Your task to perform on an android device: Empty the shopping cart on newegg.com. Add "razer blade" to the cart on newegg.com, then select checkout. Image 0: 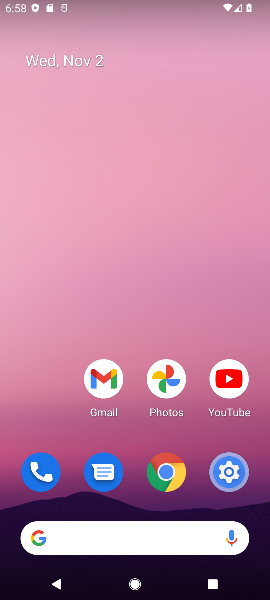
Step 0: click (177, 469)
Your task to perform on an android device: Empty the shopping cart on newegg.com. Add "razer blade" to the cart on newegg.com, then select checkout. Image 1: 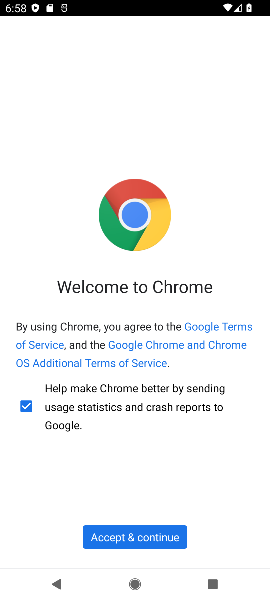
Step 1: click (125, 539)
Your task to perform on an android device: Empty the shopping cart on newegg.com. Add "razer blade" to the cart on newegg.com, then select checkout. Image 2: 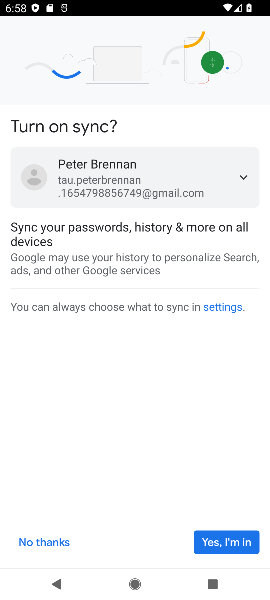
Step 2: click (232, 546)
Your task to perform on an android device: Empty the shopping cart on newegg.com. Add "razer blade" to the cart on newegg.com, then select checkout. Image 3: 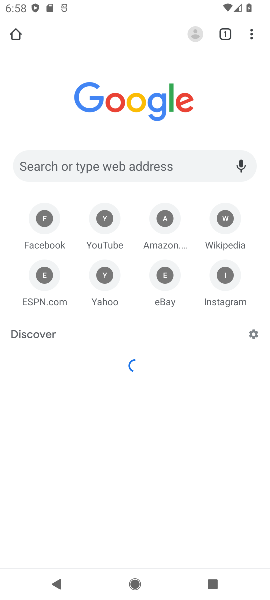
Step 3: click (118, 162)
Your task to perform on an android device: Empty the shopping cart on newegg.com. Add "razer blade" to the cart on newegg.com, then select checkout. Image 4: 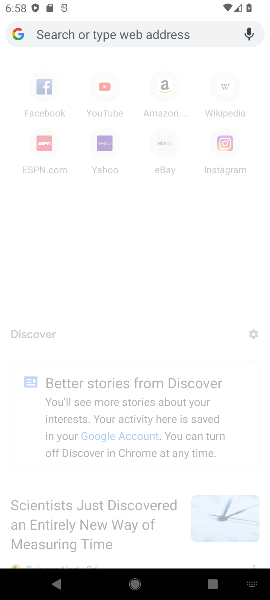
Step 4: type "newegg.com"
Your task to perform on an android device: Empty the shopping cart on newegg.com. Add "razer blade" to the cart on newegg.com, then select checkout. Image 5: 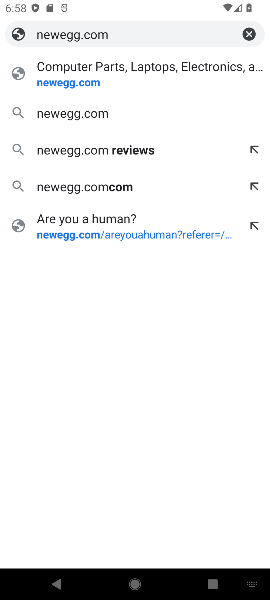
Step 5: click (83, 71)
Your task to perform on an android device: Empty the shopping cart on newegg.com. Add "razer blade" to the cart on newegg.com, then select checkout. Image 6: 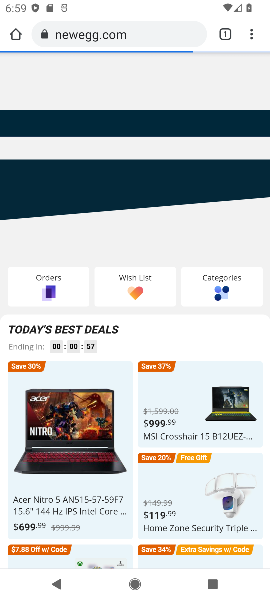
Step 6: click (96, 95)
Your task to perform on an android device: Empty the shopping cart on newegg.com. Add "razer blade" to the cart on newegg.com, then select checkout. Image 7: 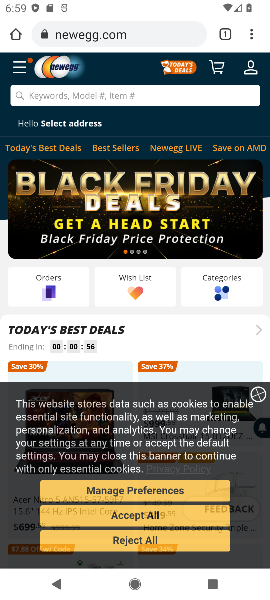
Step 7: click (143, 100)
Your task to perform on an android device: Empty the shopping cart on newegg.com. Add "razer blade" to the cart on newegg.com, then select checkout. Image 8: 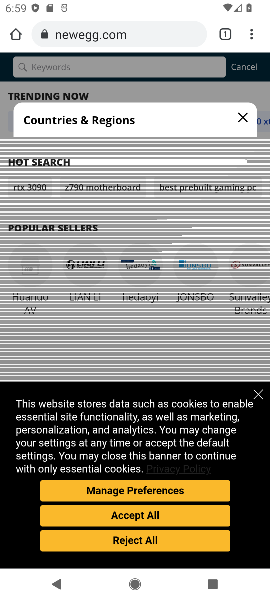
Step 8: type "razer blade"
Your task to perform on an android device: Empty the shopping cart on newegg.com. Add "razer blade" to the cart on newegg.com, then select checkout. Image 9: 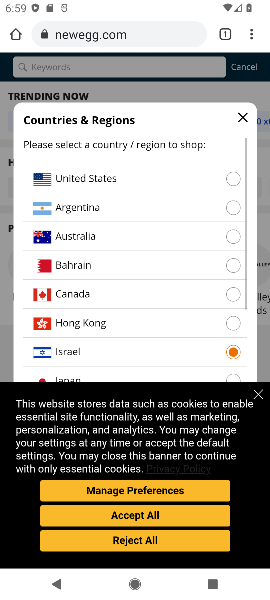
Step 9: click (240, 116)
Your task to perform on an android device: Empty the shopping cart on newegg.com. Add "razer blade" to the cart on newegg.com, then select checkout. Image 10: 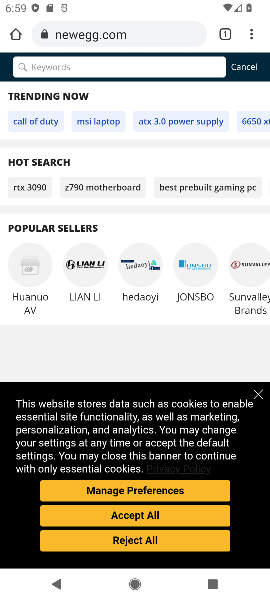
Step 10: click (256, 395)
Your task to perform on an android device: Empty the shopping cart on newegg.com. Add "razer blade" to the cart on newegg.com, then select checkout. Image 11: 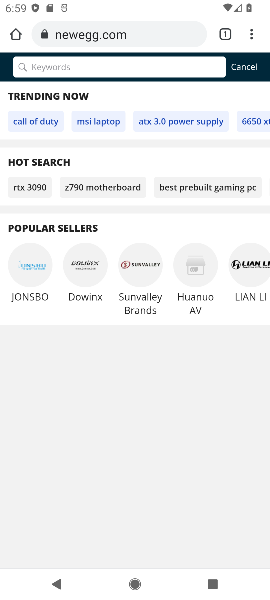
Step 11: click (109, 66)
Your task to perform on an android device: Empty the shopping cart on newegg.com. Add "razer blade" to the cart on newegg.com, then select checkout. Image 12: 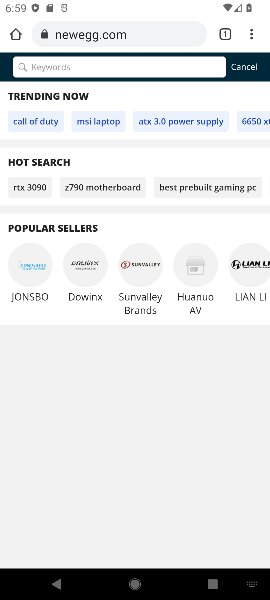
Step 12: type "razer blade"
Your task to perform on an android device: Empty the shopping cart on newegg.com. Add "razer blade" to the cart on newegg.com, then select checkout. Image 13: 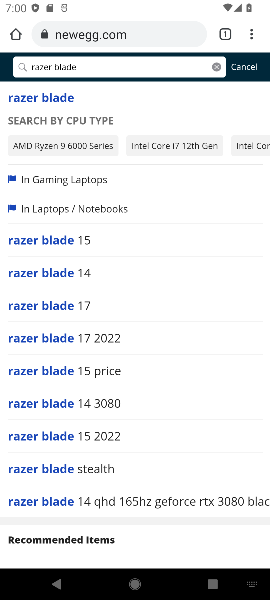
Step 13: click (40, 97)
Your task to perform on an android device: Empty the shopping cart on newegg.com. Add "razer blade" to the cart on newegg.com, then select checkout. Image 14: 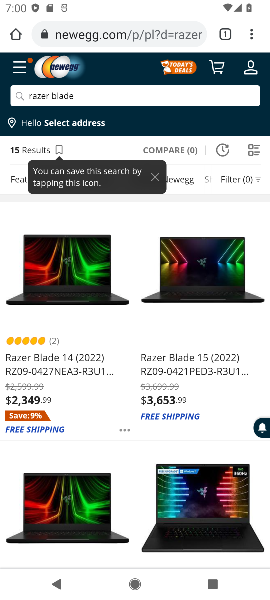
Step 14: click (70, 261)
Your task to perform on an android device: Empty the shopping cart on newegg.com. Add "razer blade" to the cart on newegg.com, then select checkout. Image 15: 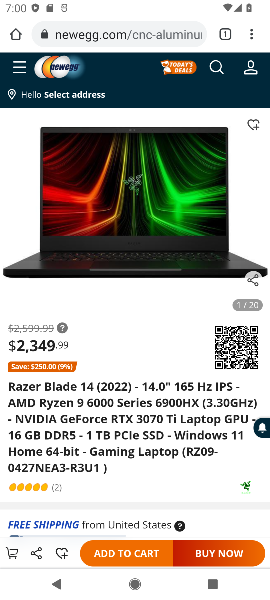
Step 15: click (128, 553)
Your task to perform on an android device: Empty the shopping cart on newegg.com. Add "razer blade" to the cart on newegg.com, then select checkout. Image 16: 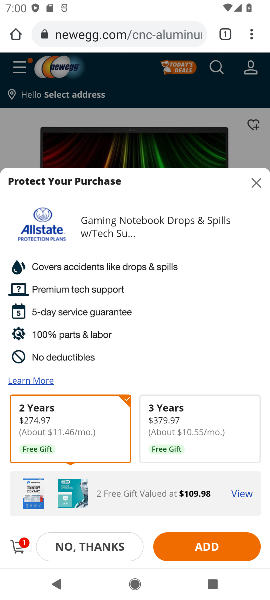
Step 16: click (16, 549)
Your task to perform on an android device: Empty the shopping cart on newegg.com. Add "razer blade" to the cart on newegg.com, then select checkout. Image 17: 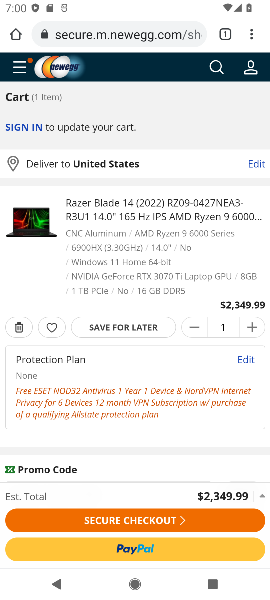
Step 17: click (141, 547)
Your task to perform on an android device: Empty the shopping cart on newegg.com. Add "razer blade" to the cart on newegg.com, then select checkout. Image 18: 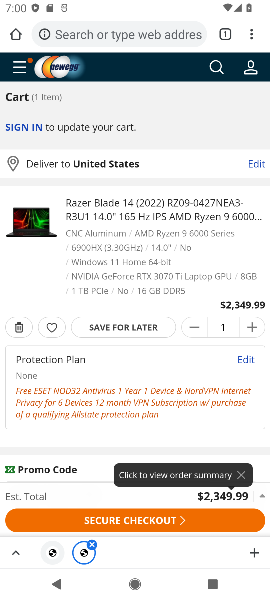
Step 18: click (125, 521)
Your task to perform on an android device: Empty the shopping cart on newegg.com. Add "razer blade" to the cart on newegg.com, then select checkout. Image 19: 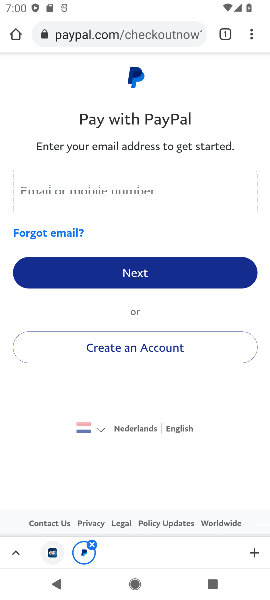
Step 19: task complete